Your task to perform on an android device: See recent photos Image 0: 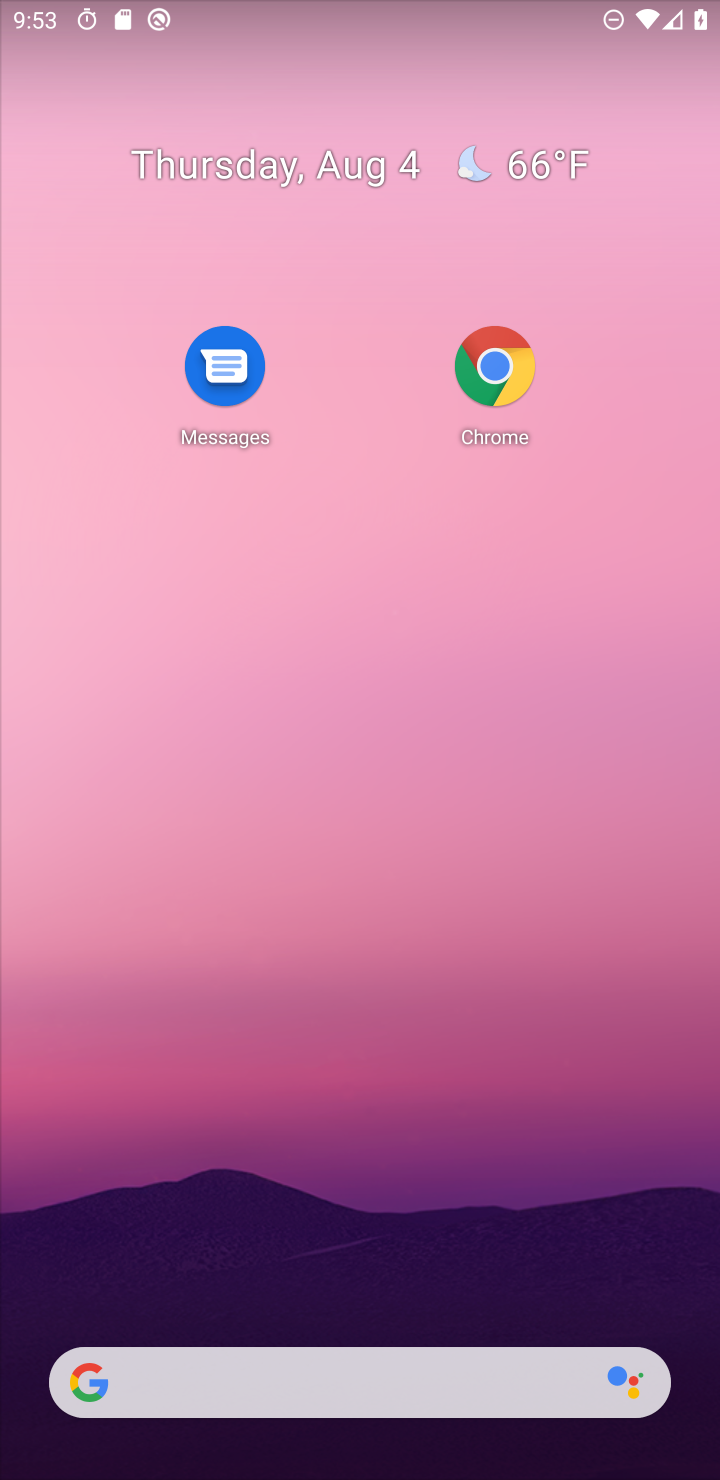
Step 0: press home button
Your task to perform on an android device: See recent photos Image 1: 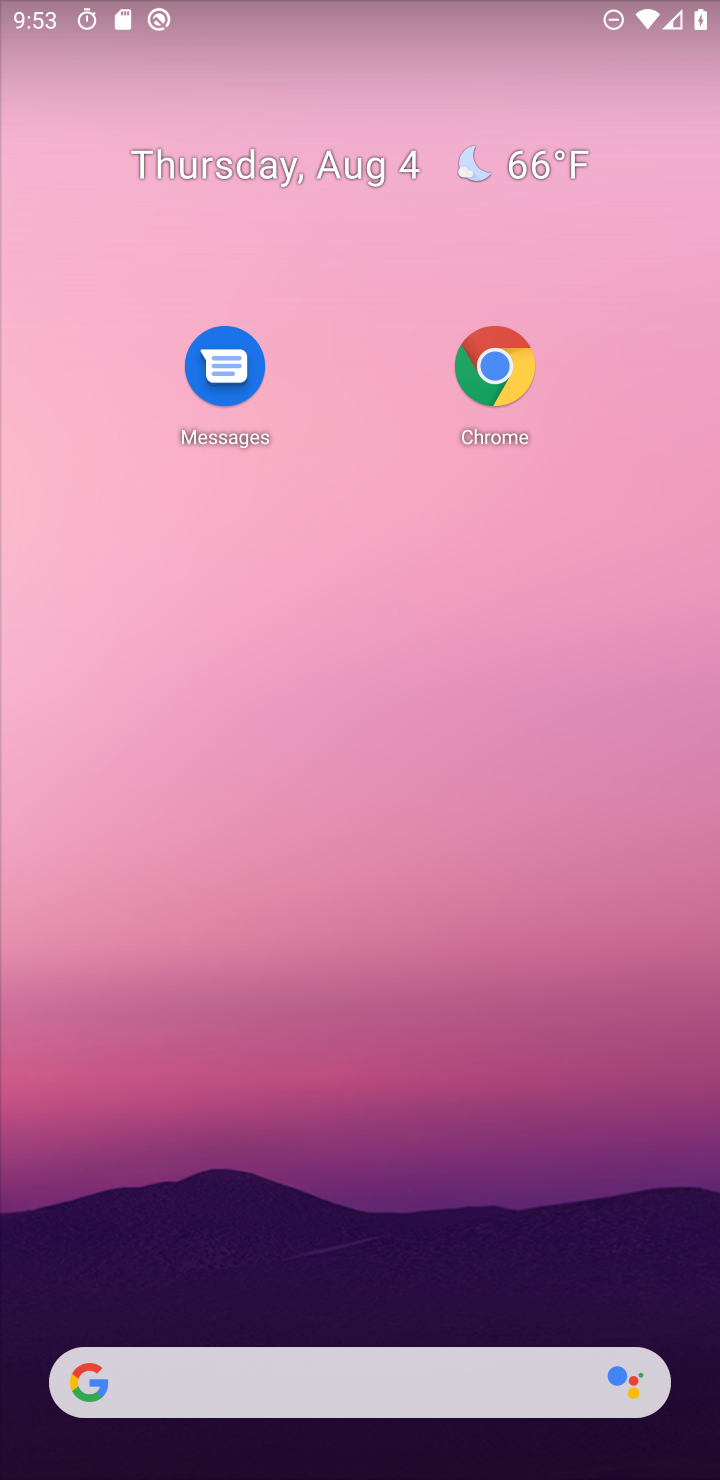
Step 1: drag from (429, 1360) to (586, 389)
Your task to perform on an android device: See recent photos Image 2: 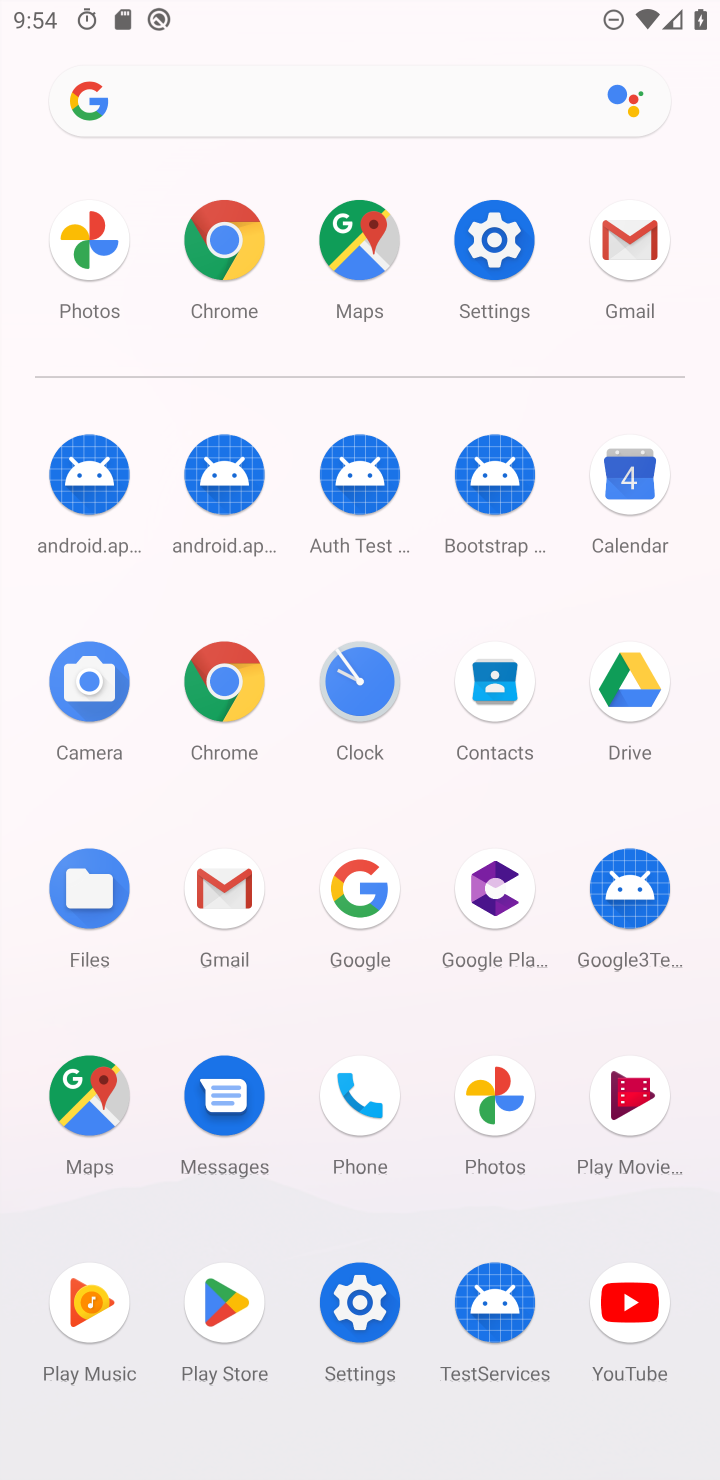
Step 2: click (481, 1088)
Your task to perform on an android device: See recent photos Image 3: 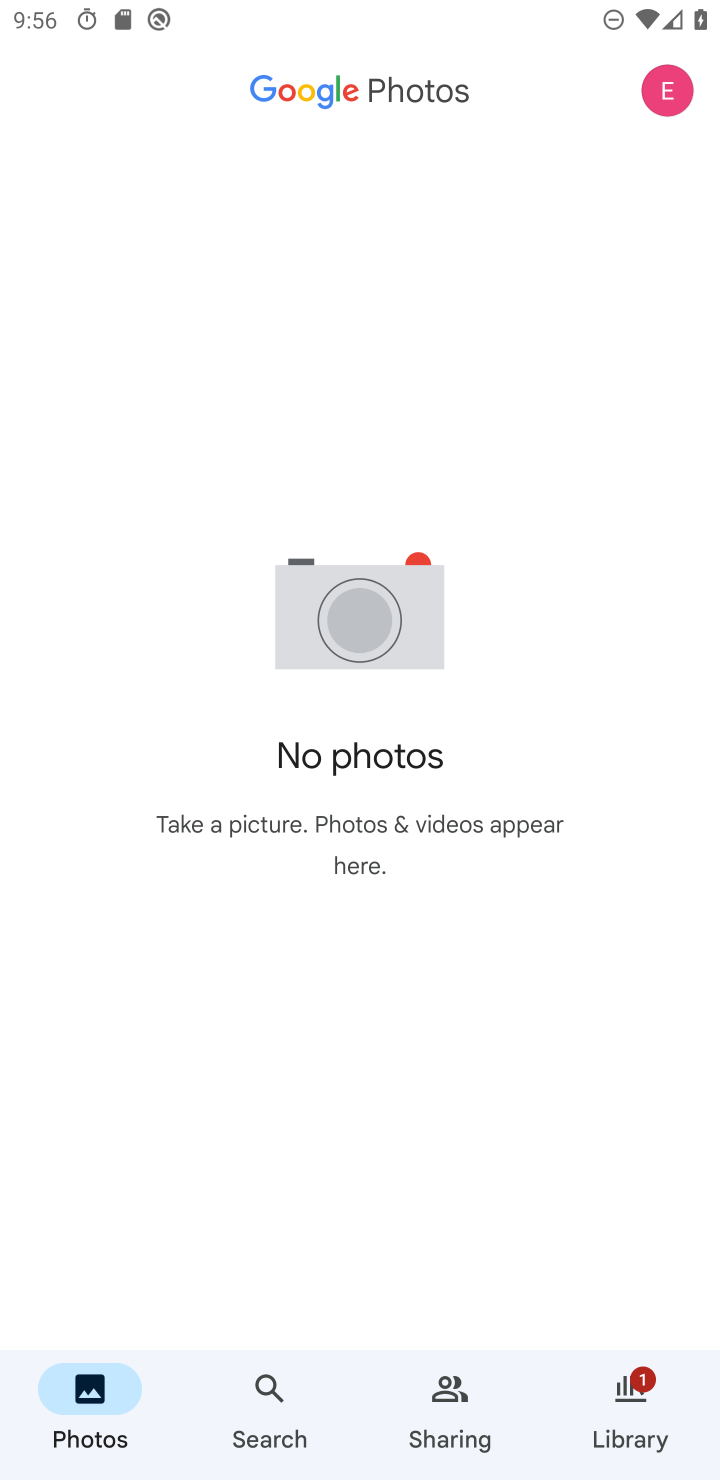
Step 3: task complete